Your task to perform on an android device: Clear the shopping cart on walmart.com. Search for razer blade on walmart.com, select the first entry, add it to the cart, then select checkout. Image 0: 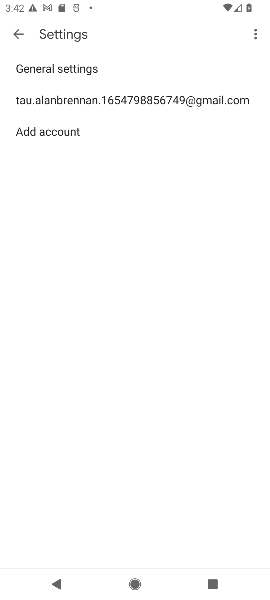
Step 0: task complete